Your task to perform on an android device: Do I have any events tomorrow? Image 0: 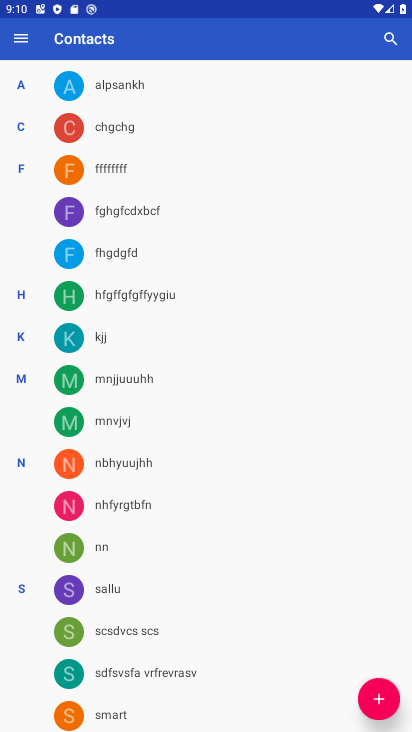
Step 0: press home button
Your task to perform on an android device: Do I have any events tomorrow? Image 1: 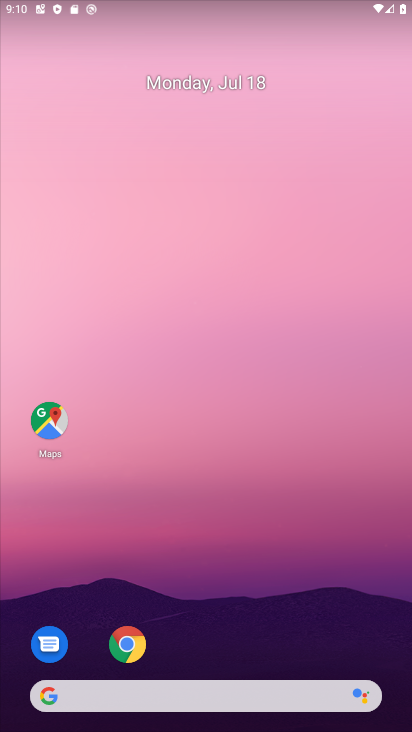
Step 1: drag from (198, 666) to (111, 127)
Your task to perform on an android device: Do I have any events tomorrow? Image 2: 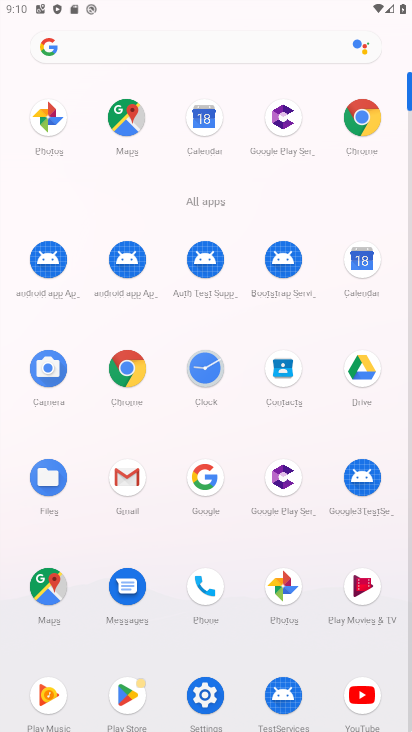
Step 2: click (352, 267)
Your task to perform on an android device: Do I have any events tomorrow? Image 3: 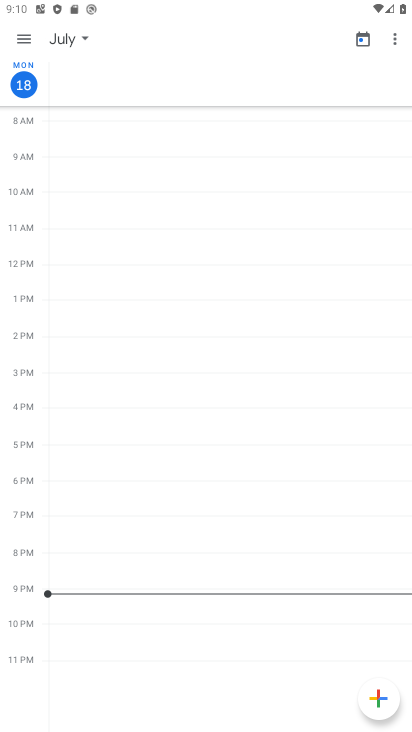
Step 3: click (16, 32)
Your task to perform on an android device: Do I have any events tomorrow? Image 4: 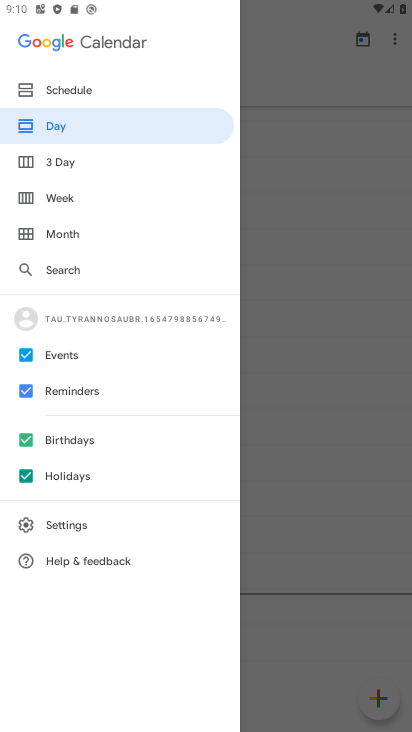
Step 4: click (65, 185)
Your task to perform on an android device: Do I have any events tomorrow? Image 5: 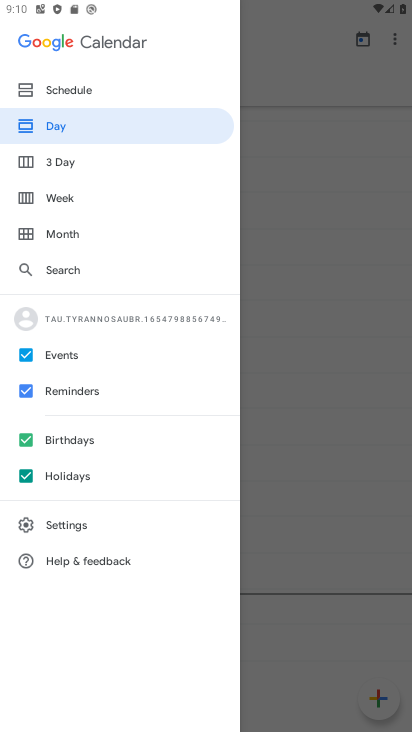
Step 5: click (64, 200)
Your task to perform on an android device: Do I have any events tomorrow? Image 6: 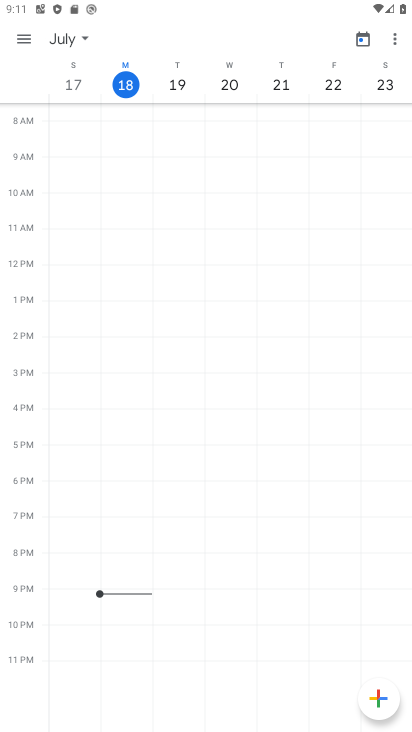
Step 6: click (172, 82)
Your task to perform on an android device: Do I have any events tomorrow? Image 7: 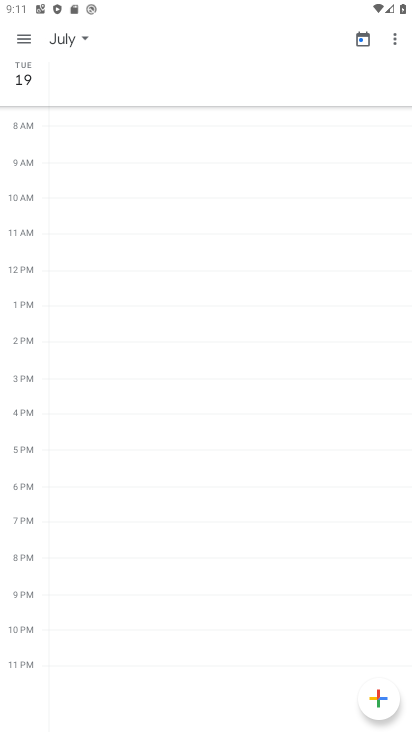
Step 7: task complete